Your task to perform on an android device: stop showing notifications on the lock screen Image 0: 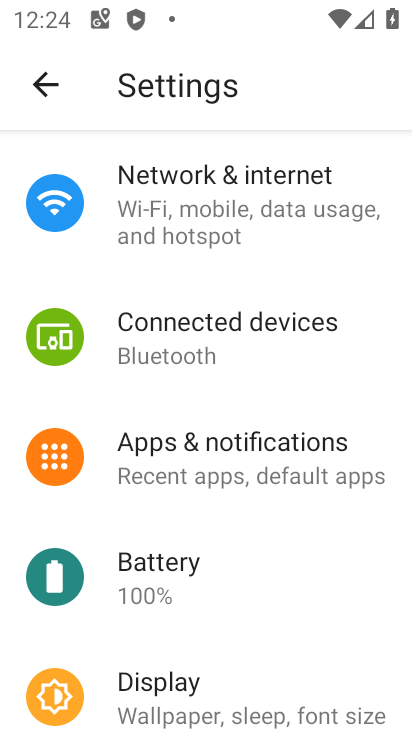
Step 0: drag from (168, 582) to (162, 272)
Your task to perform on an android device: stop showing notifications on the lock screen Image 1: 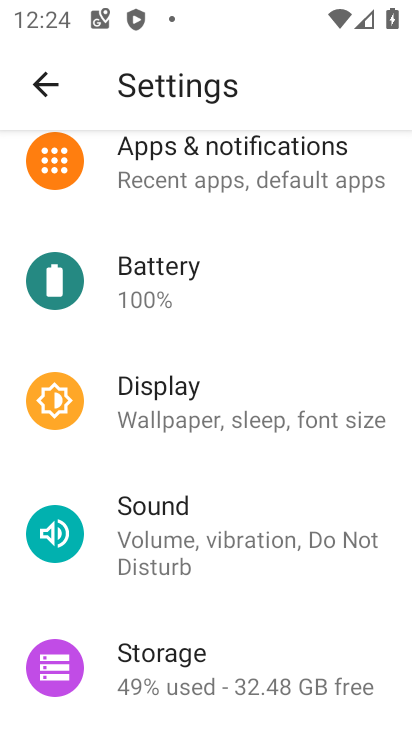
Step 1: drag from (243, 473) to (250, 229)
Your task to perform on an android device: stop showing notifications on the lock screen Image 2: 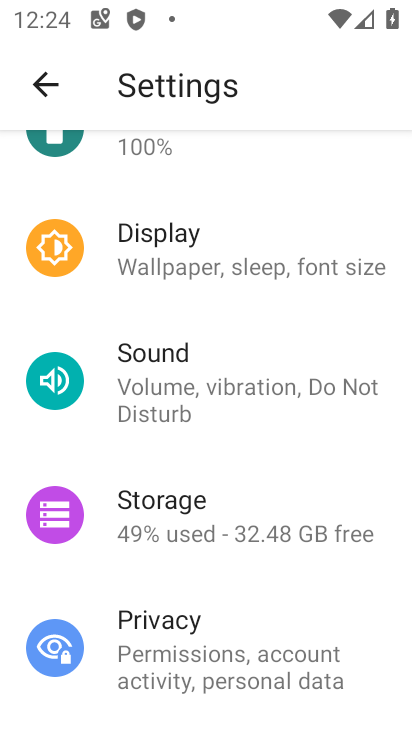
Step 2: drag from (256, 551) to (253, 260)
Your task to perform on an android device: stop showing notifications on the lock screen Image 3: 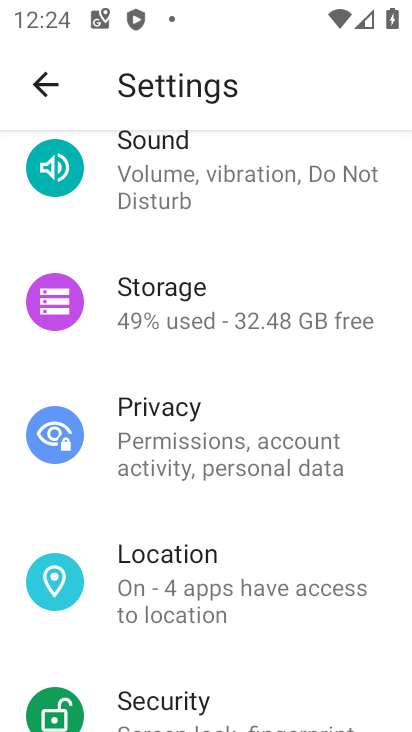
Step 3: drag from (212, 527) to (270, 125)
Your task to perform on an android device: stop showing notifications on the lock screen Image 4: 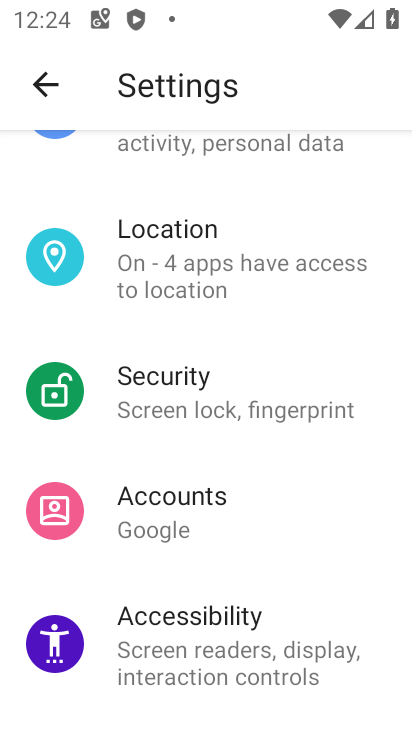
Step 4: drag from (258, 500) to (294, 248)
Your task to perform on an android device: stop showing notifications on the lock screen Image 5: 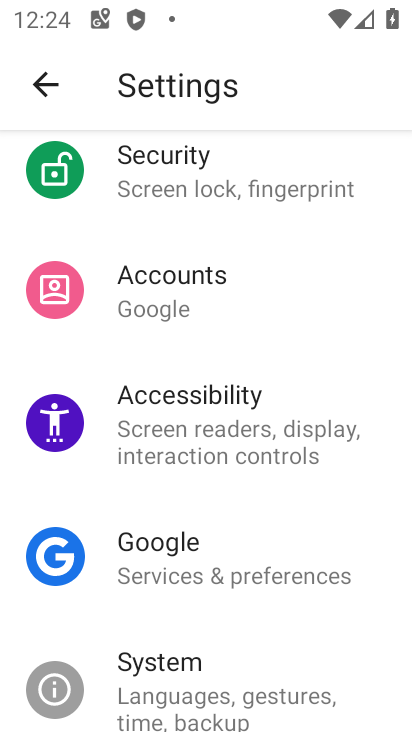
Step 5: drag from (299, 236) to (323, 581)
Your task to perform on an android device: stop showing notifications on the lock screen Image 6: 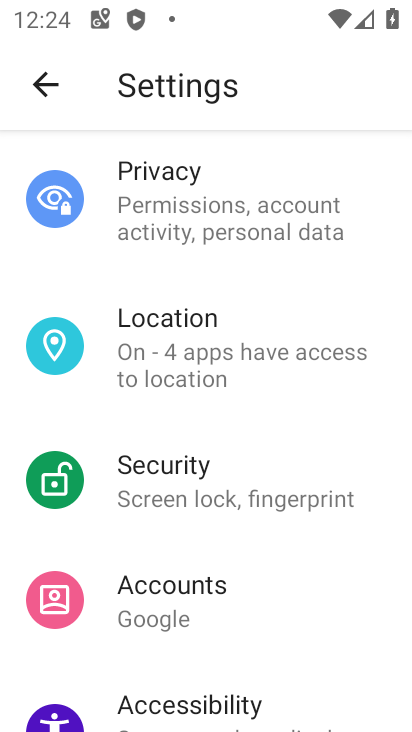
Step 6: drag from (314, 306) to (334, 563)
Your task to perform on an android device: stop showing notifications on the lock screen Image 7: 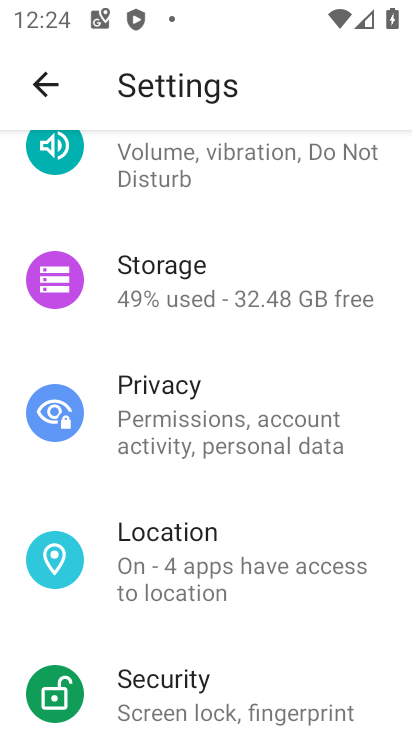
Step 7: drag from (316, 325) to (320, 549)
Your task to perform on an android device: stop showing notifications on the lock screen Image 8: 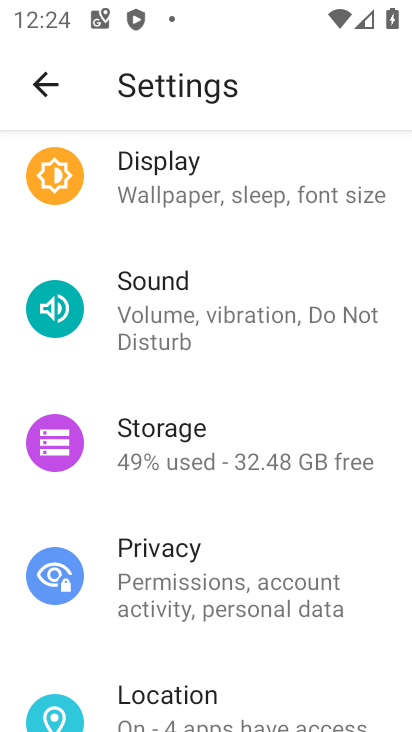
Step 8: drag from (367, 396) to (362, 526)
Your task to perform on an android device: stop showing notifications on the lock screen Image 9: 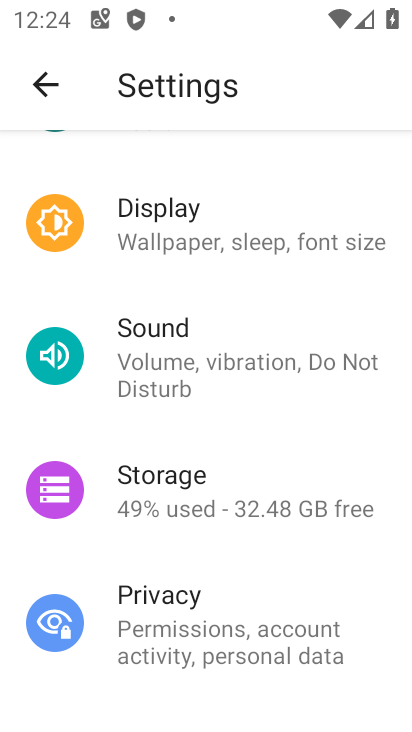
Step 9: drag from (251, 579) to (258, 152)
Your task to perform on an android device: stop showing notifications on the lock screen Image 10: 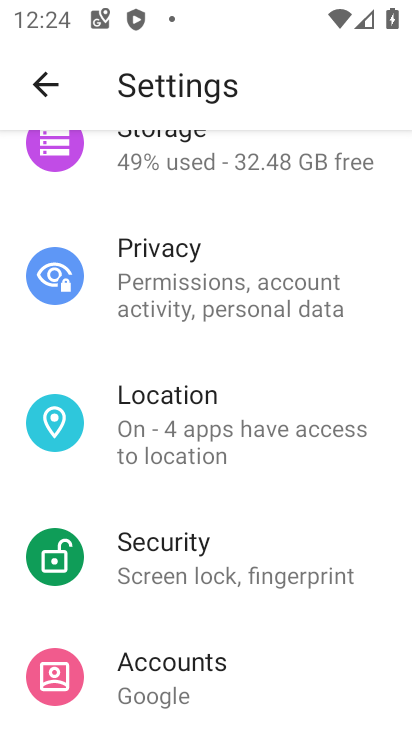
Step 10: drag from (275, 524) to (271, 225)
Your task to perform on an android device: stop showing notifications on the lock screen Image 11: 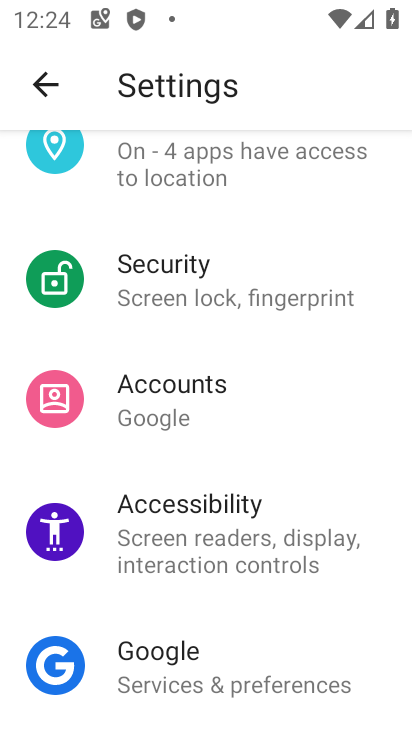
Step 11: drag from (191, 574) to (218, 266)
Your task to perform on an android device: stop showing notifications on the lock screen Image 12: 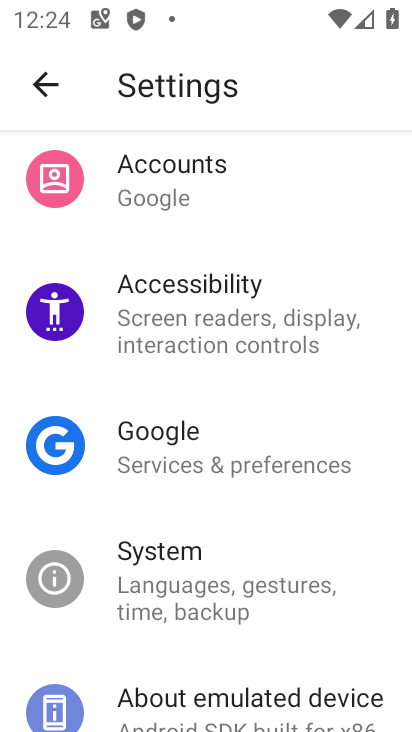
Step 12: drag from (185, 569) to (203, 265)
Your task to perform on an android device: stop showing notifications on the lock screen Image 13: 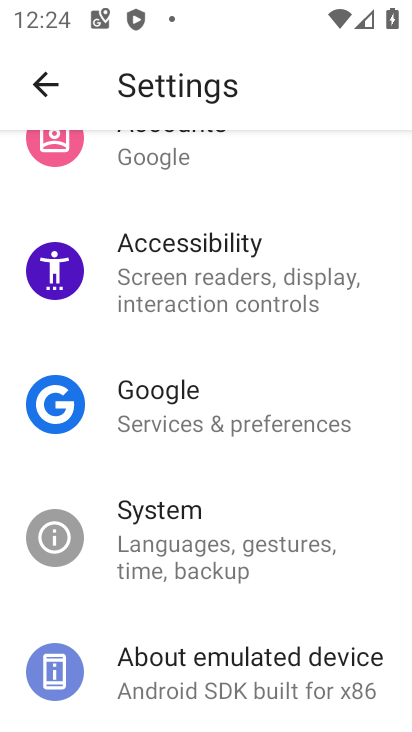
Step 13: click (179, 673)
Your task to perform on an android device: stop showing notifications on the lock screen Image 14: 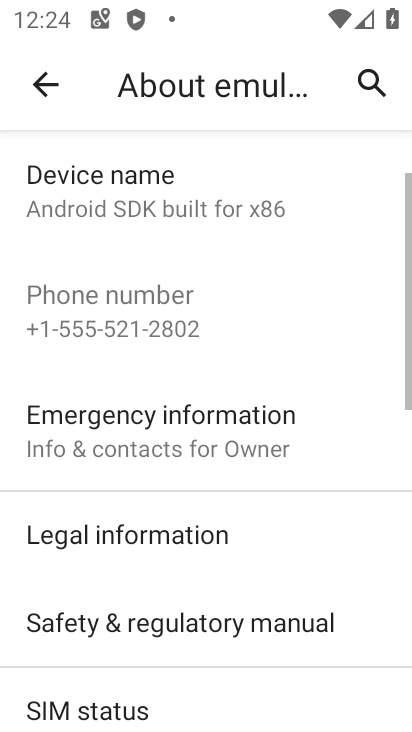
Step 14: drag from (195, 630) to (204, 288)
Your task to perform on an android device: stop showing notifications on the lock screen Image 15: 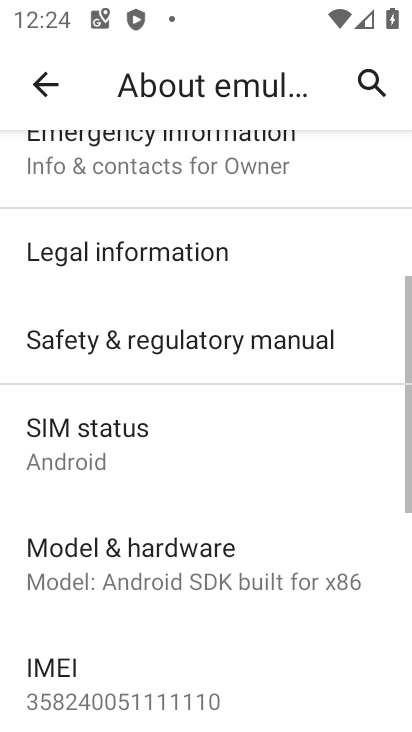
Step 15: drag from (166, 639) to (194, 322)
Your task to perform on an android device: stop showing notifications on the lock screen Image 16: 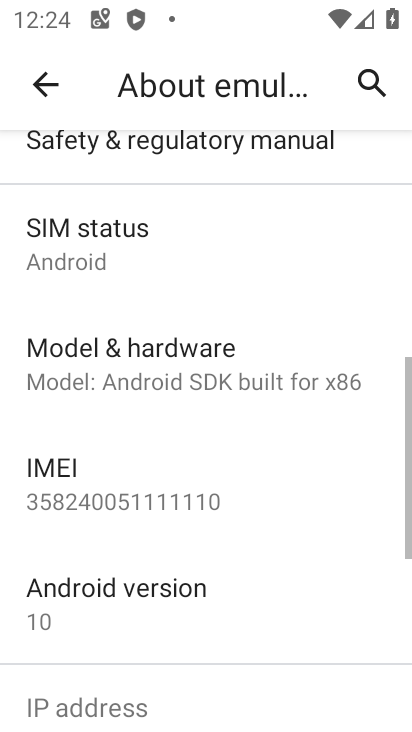
Step 16: drag from (257, 610) to (256, 233)
Your task to perform on an android device: stop showing notifications on the lock screen Image 17: 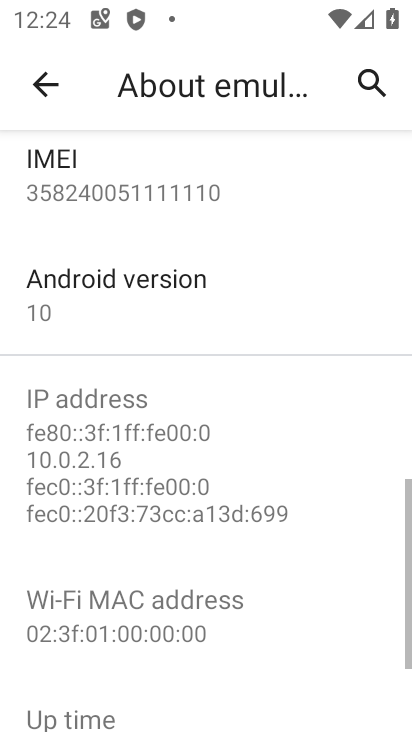
Step 17: drag from (179, 515) to (205, 209)
Your task to perform on an android device: stop showing notifications on the lock screen Image 18: 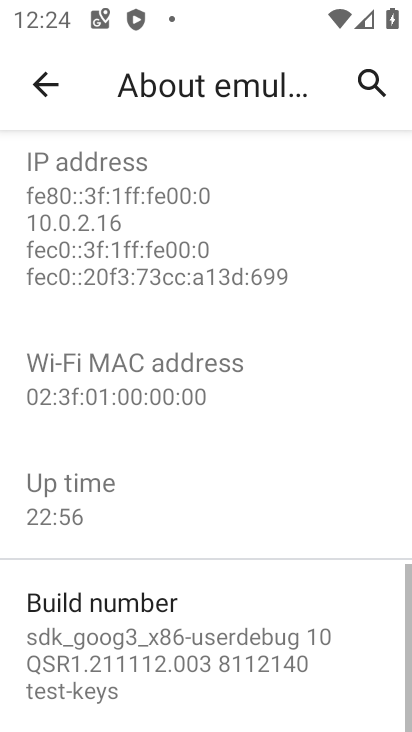
Step 18: drag from (208, 615) to (244, 319)
Your task to perform on an android device: stop showing notifications on the lock screen Image 19: 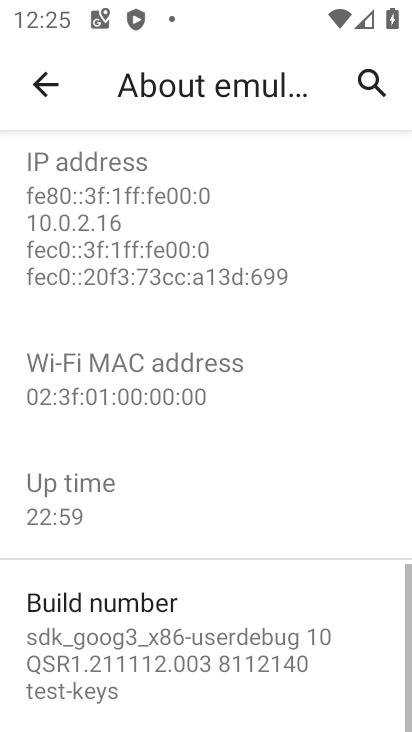
Step 19: press back button
Your task to perform on an android device: stop showing notifications on the lock screen Image 20: 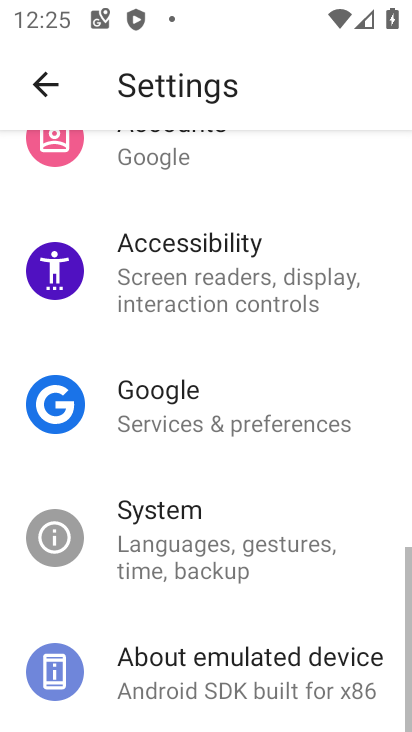
Step 20: drag from (282, 340) to (272, 592)
Your task to perform on an android device: stop showing notifications on the lock screen Image 21: 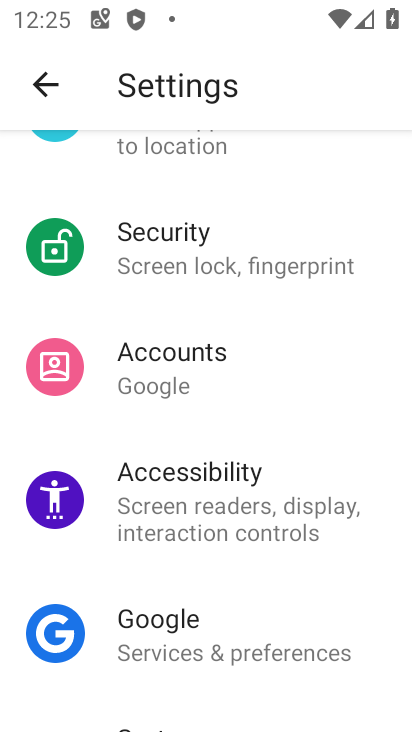
Step 21: drag from (310, 324) to (318, 535)
Your task to perform on an android device: stop showing notifications on the lock screen Image 22: 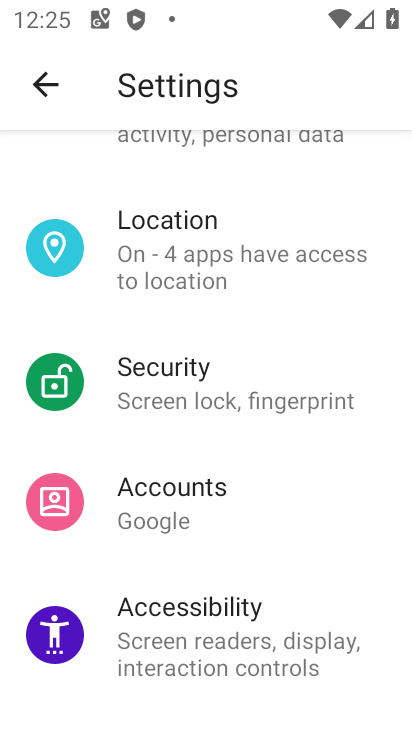
Step 22: click (306, 396)
Your task to perform on an android device: stop showing notifications on the lock screen Image 23: 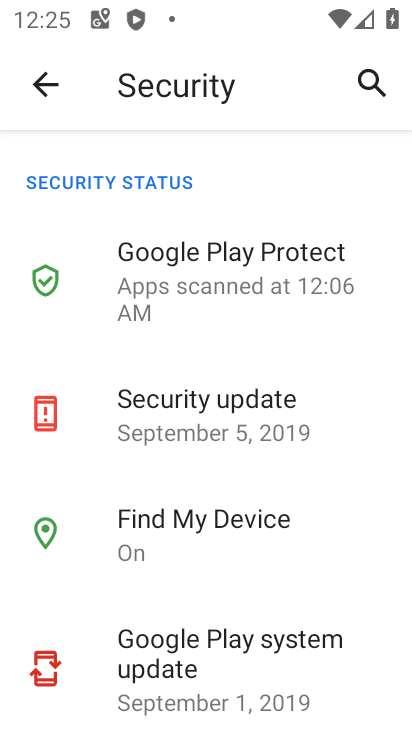
Step 23: press back button
Your task to perform on an android device: stop showing notifications on the lock screen Image 24: 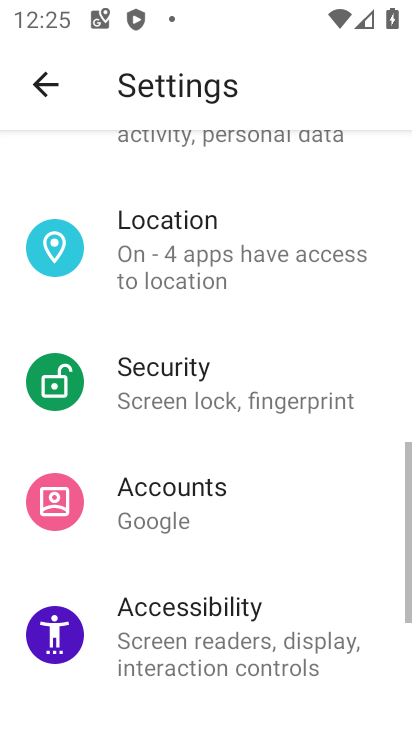
Step 24: drag from (224, 345) to (284, 543)
Your task to perform on an android device: stop showing notifications on the lock screen Image 25: 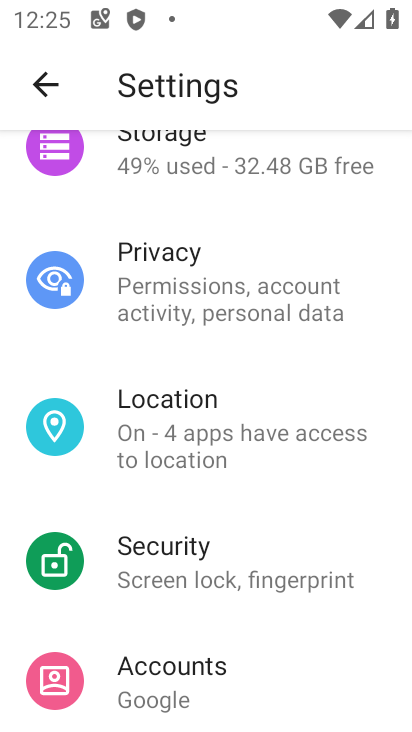
Step 25: drag from (217, 254) to (311, 532)
Your task to perform on an android device: stop showing notifications on the lock screen Image 26: 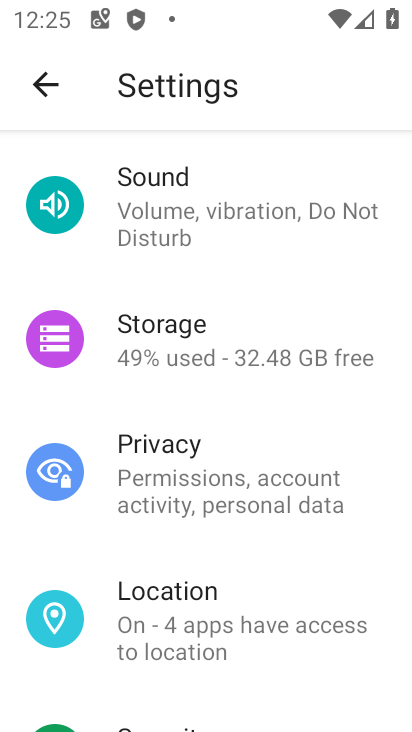
Step 26: drag from (215, 313) to (286, 574)
Your task to perform on an android device: stop showing notifications on the lock screen Image 27: 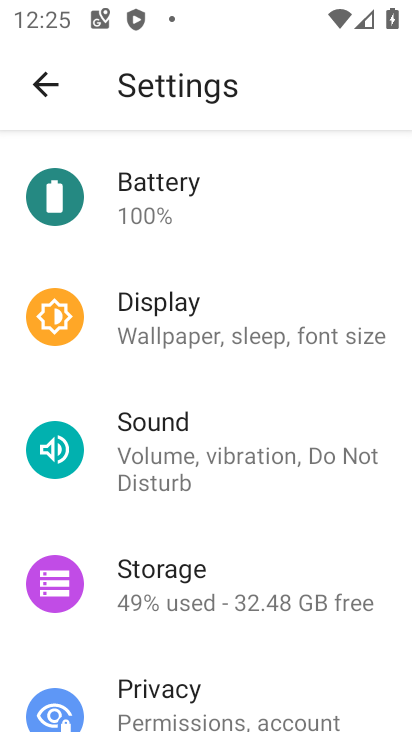
Step 27: click (226, 327)
Your task to perform on an android device: stop showing notifications on the lock screen Image 28: 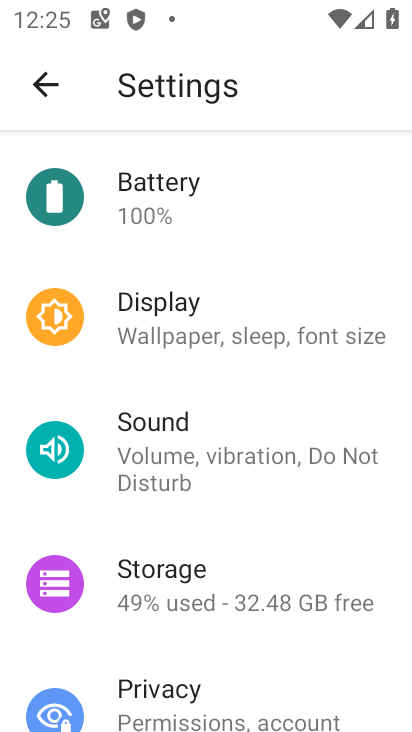
Step 28: click (226, 327)
Your task to perform on an android device: stop showing notifications on the lock screen Image 29: 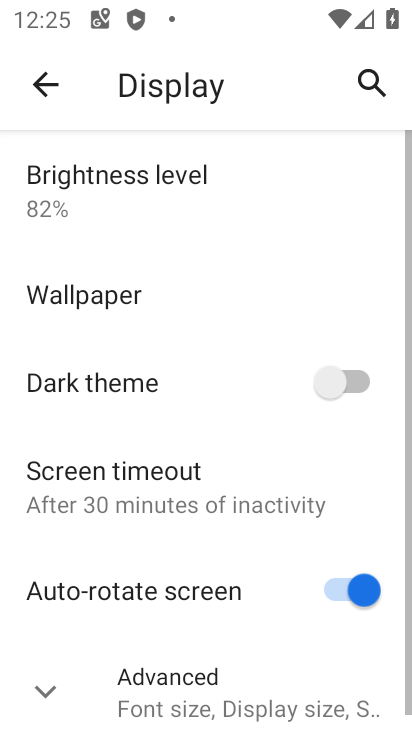
Step 29: drag from (195, 542) to (194, 299)
Your task to perform on an android device: stop showing notifications on the lock screen Image 30: 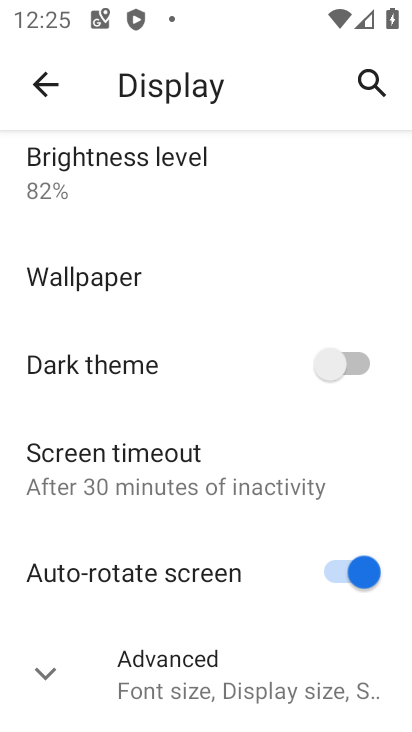
Step 30: click (237, 658)
Your task to perform on an android device: stop showing notifications on the lock screen Image 31: 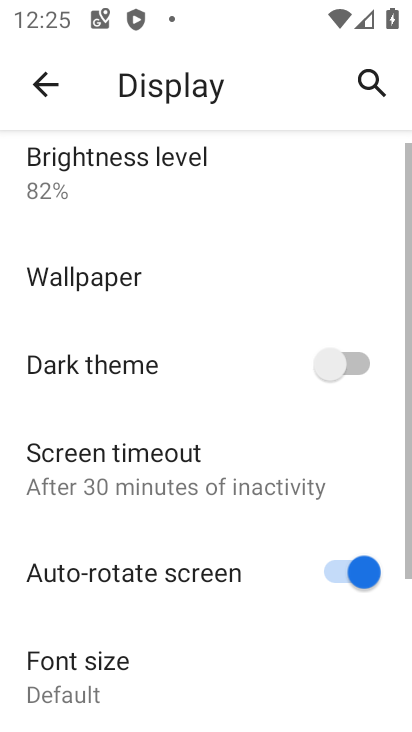
Step 31: task complete